Your task to perform on an android device: Open Amazon Image 0: 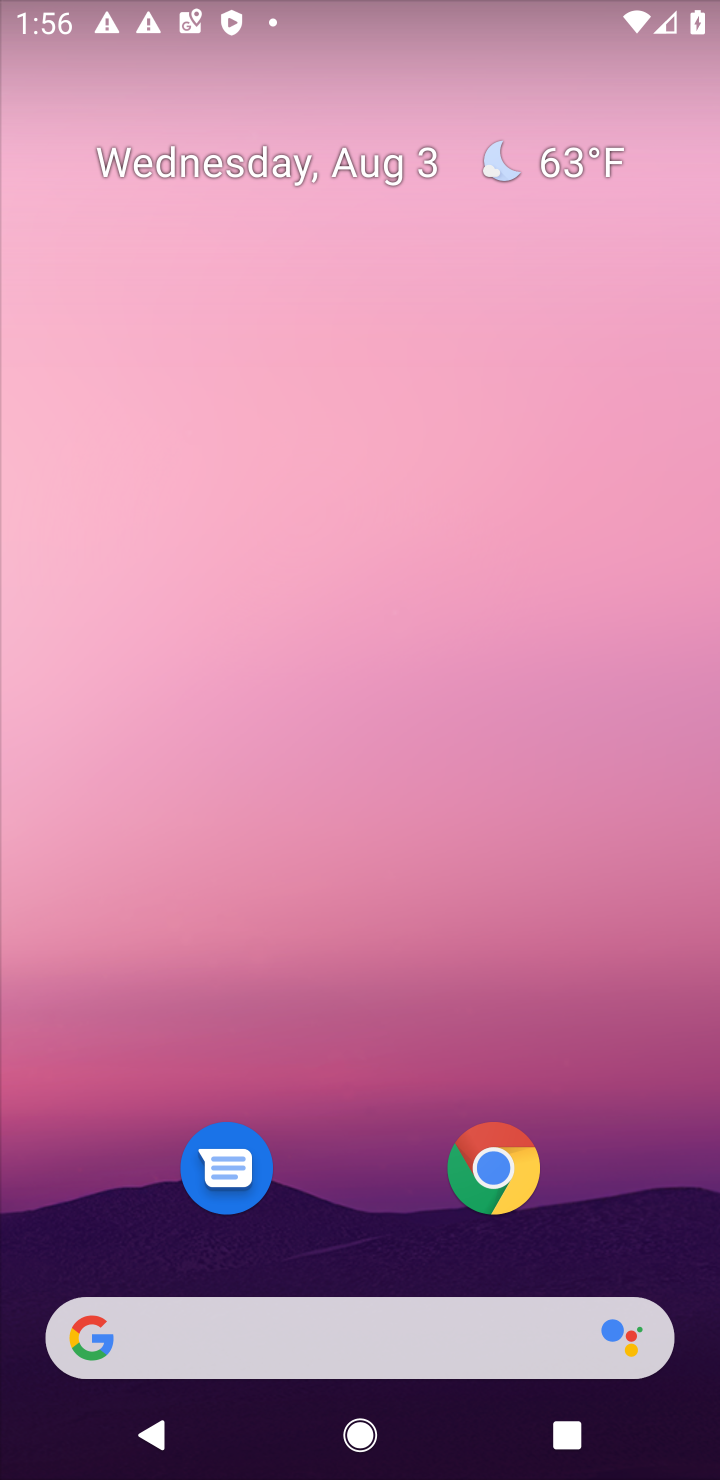
Step 0: click (497, 1170)
Your task to perform on an android device: Open Amazon Image 1: 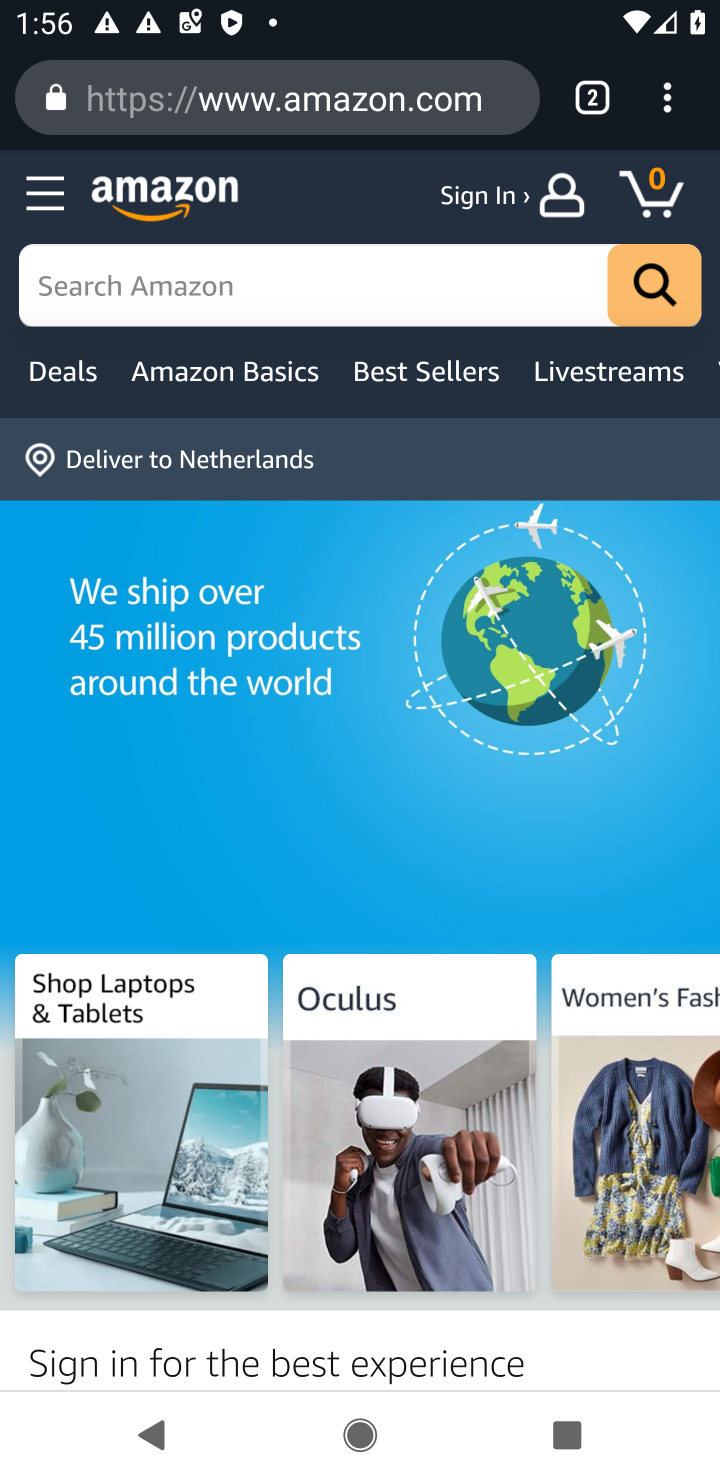
Step 1: task complete